Your task to perform on an android device: Do I have any events tomorrow? Image 0: 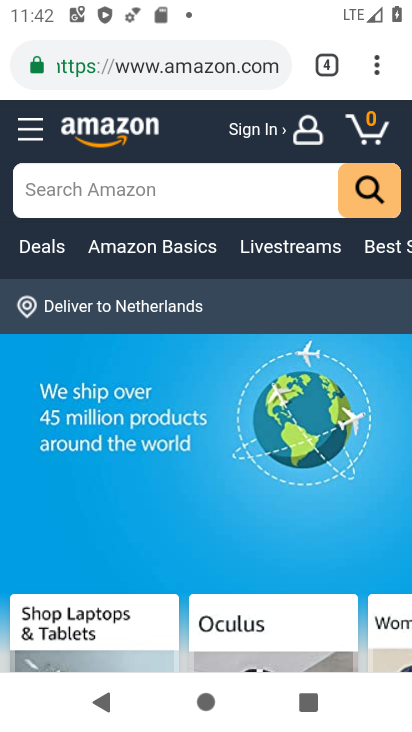
Step 0: press home button
Your task to perform on an android device: Do I have any events tomorrow? Image 1: 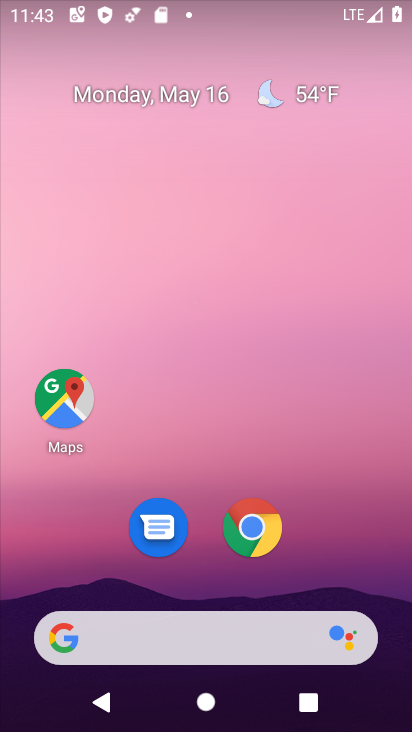
Step 1: drag from (259, 668) to (221, 171)
Your task to perform on an android device: Do I have any events tomorrow? Image 2: 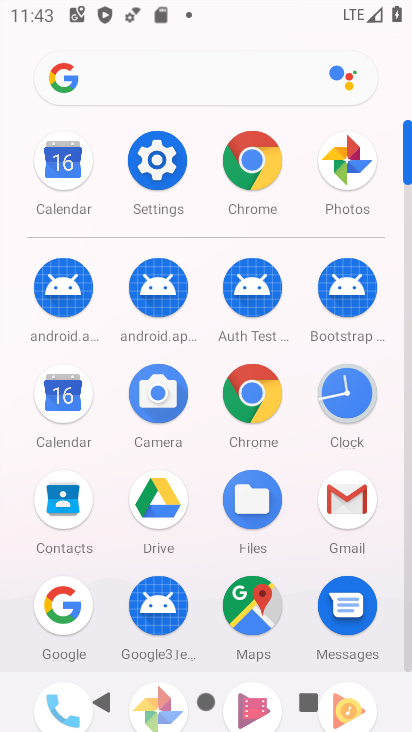
Step 2: click (81, 389)
Your task to perform on an android device: Do I have any events tomorrow? Image 3: 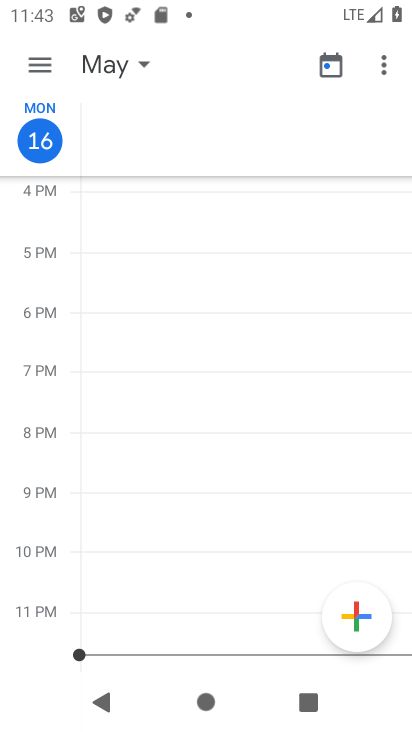
Step 3: click (38, 67)
Your task to perform on an android device: Do I have any events tomorrow? Image 4: 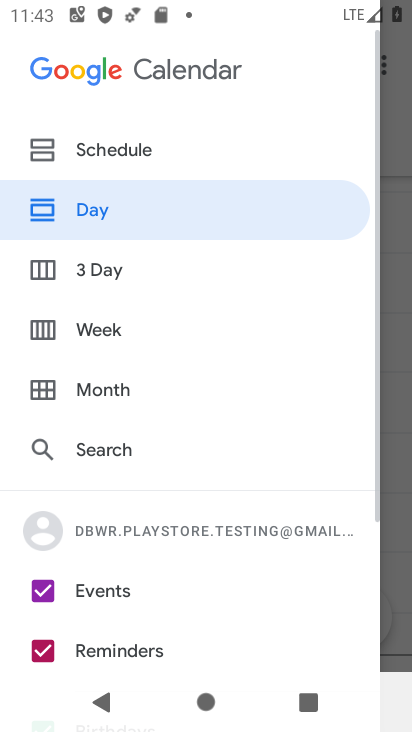
Step 4: click (72, 277)
Your task to perform on an android device: Do I have any events tomorrow? Image 5: 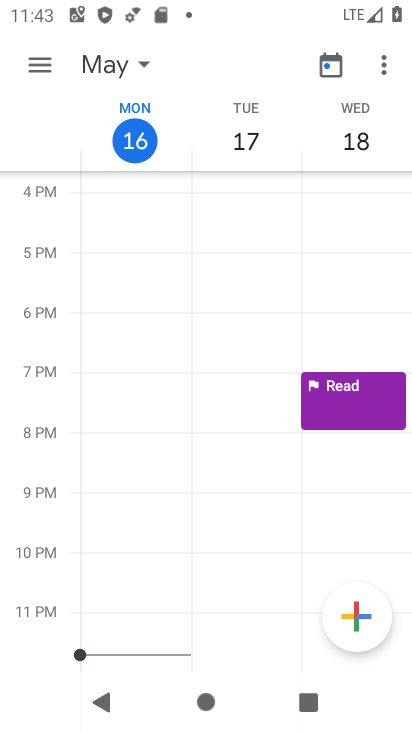
Step 5: click (207, 142)
Your task to perform on an android device: Do I have any events tomorrow? Image 6: 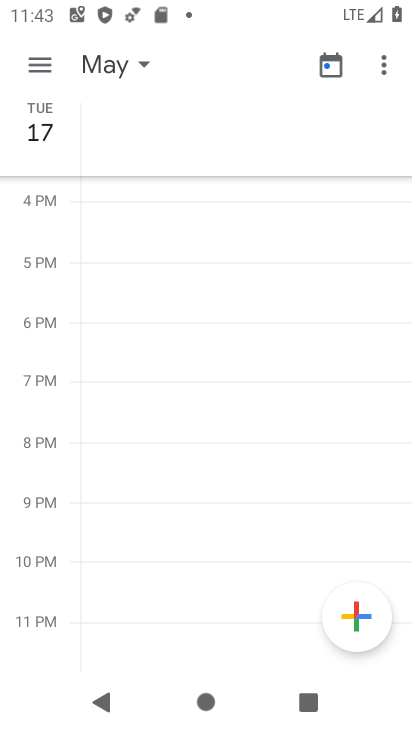
Step 6: click (62, 144)
Your task to perform on an android device: Do I have any events tomorrow? Image 7: 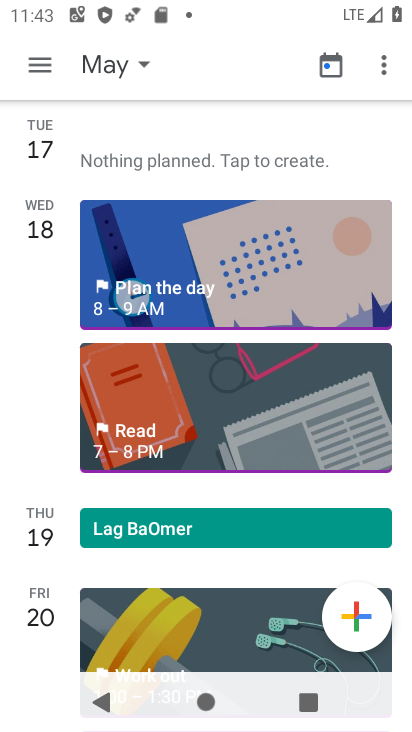
Step 7: task complete